Your task to perform on an android device: Open sound settings Image 0: 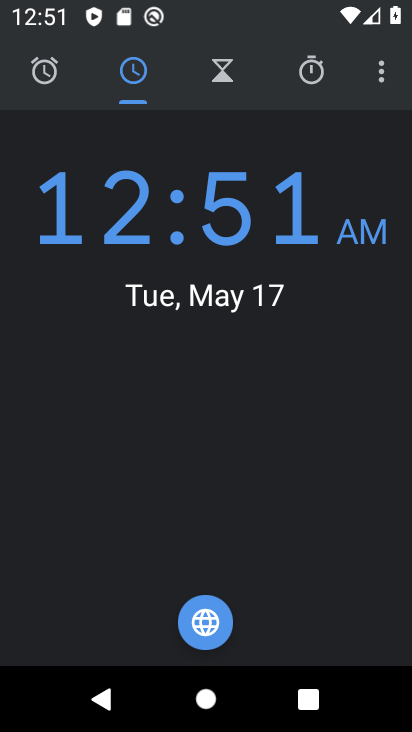
Step 0: press home button
Your task to perform on an android device: Open sound settings Image 1: 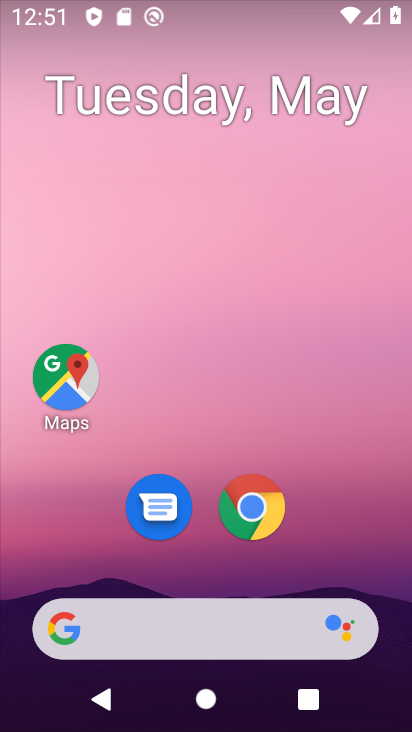
Step 1: drag from (345, 555) to (332, 182)
Your task to perform on an android device: Open sound settings Image 2: 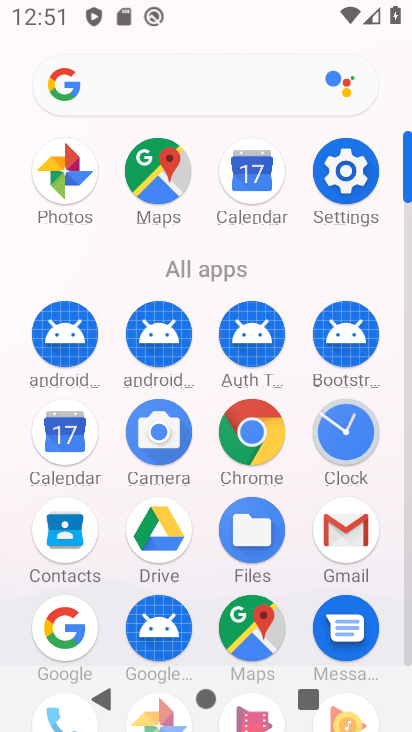
Step 2: click (359, 171)
Your task to perform on an android device: Open sound settings Image 3: 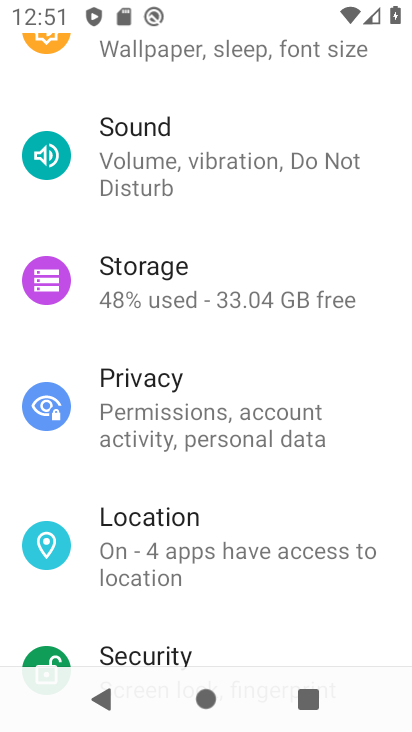
Step 3: click (127, 163)
Your task to perform on an android device: Open sound settings Image 4: 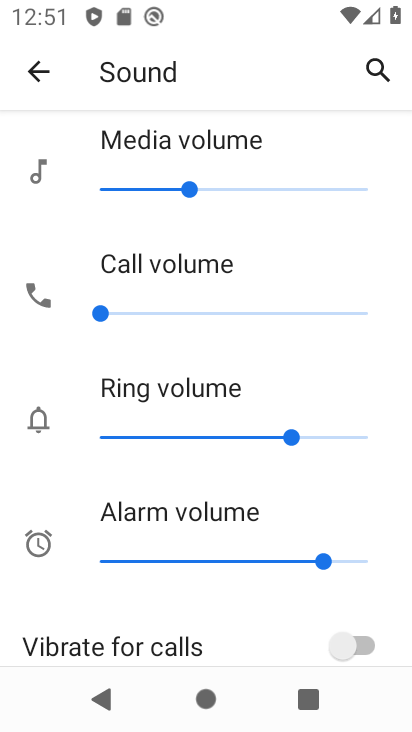
Step 4: task complete